Your task to perform on an android device: Turn off the flashlight Image 0: 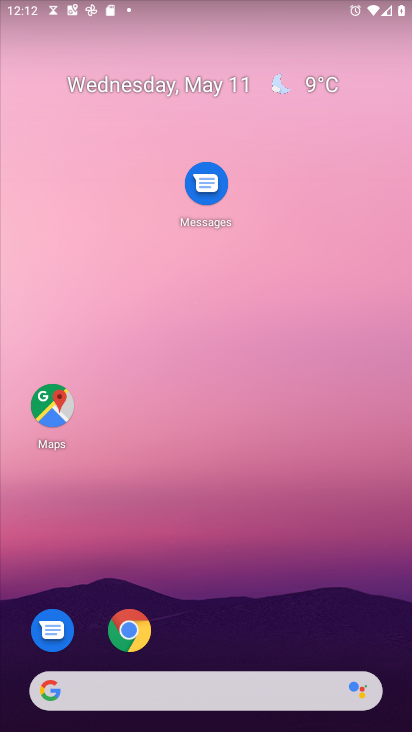
Step 0: task impossible